Your task to perform on an android device: empty trash in google photos Image 0: 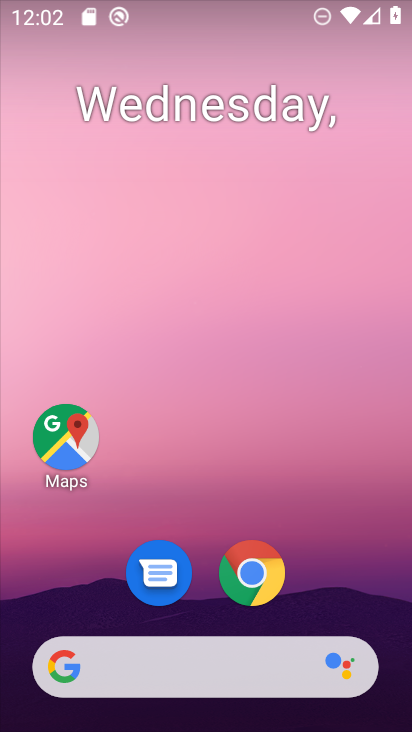
Step 0: drag from (390, 590) to (338, 152)
Your task to perform on an android device: empty trash in google photos Image 1: 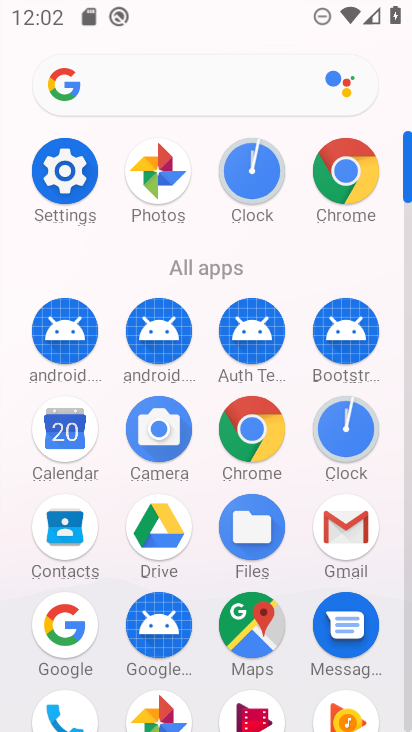
Step 1: click (159, 205)
Your task to perform on an android device: empty trash in google photos Image 2: 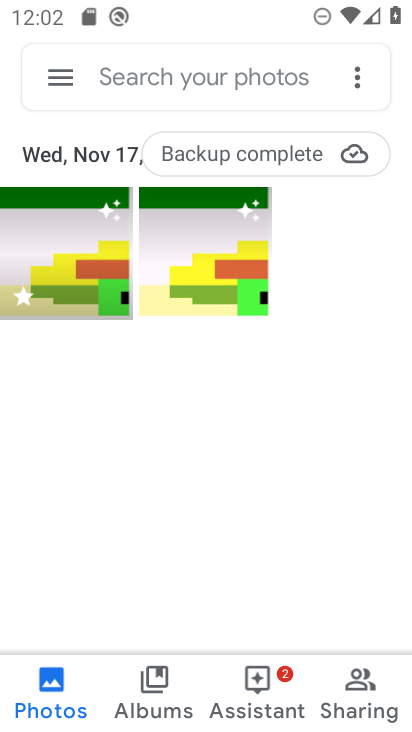
Step 2: click (70, 92)
Your task to perform on an android device: empty trash in google photos Image 3: 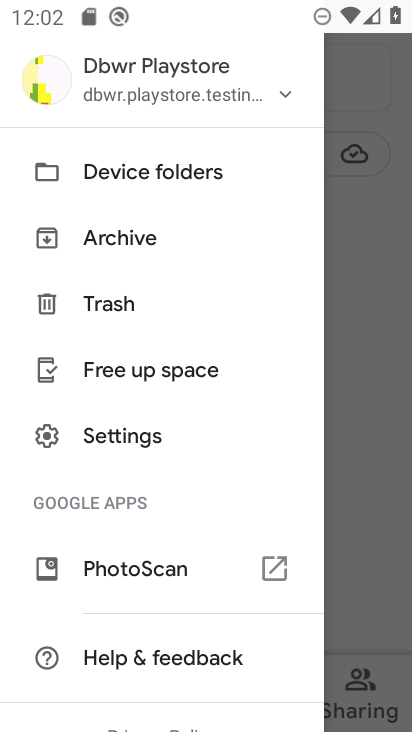
Step 3: click (136, 320)
Your task to perform on an android device: empty trash in google photos Image 4: 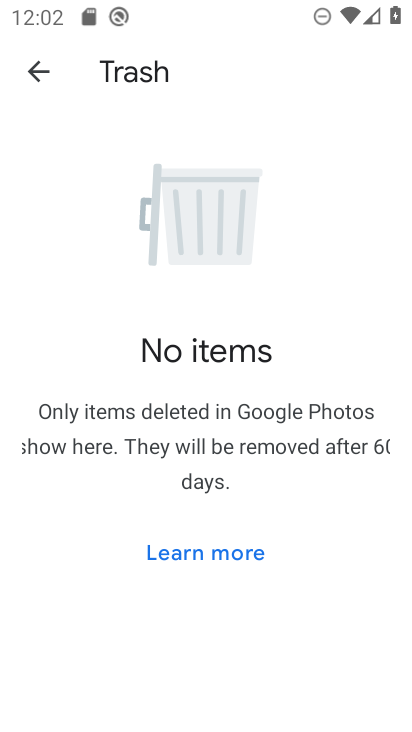
Step 4: task complete